Your task to perform on an android device: change your default location settings in chrome Image 0: 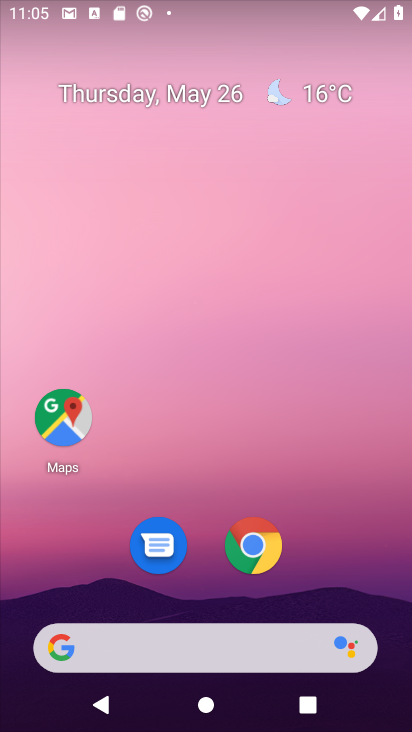
Step 0: press home button
Your task to perform on an android device: change your default location settings in chrome Image 1: 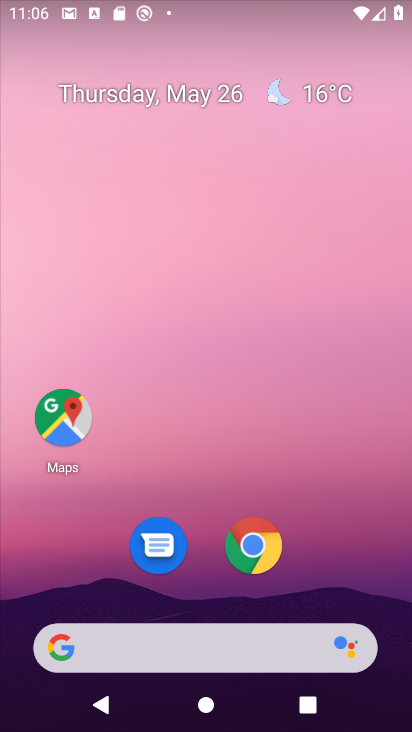
Step 1: click (259, 559)
Your task to perform on an android device: change your default location settings in chrome Image 2: 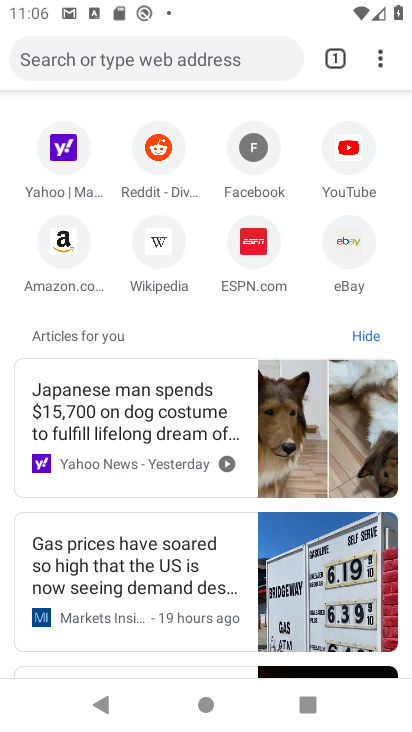
Step 2: drag from (382, 63) to (152, 487)
Your task to perform on an android device: change your default location settings in chrome Image 3: 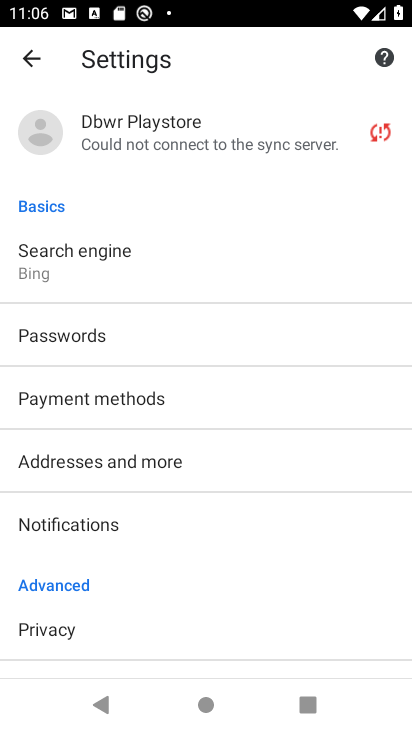
Step 3: drag from (255, 589) to (247, 250)
Your task to perform on an android device: change your default location settings in chrome Image 4: 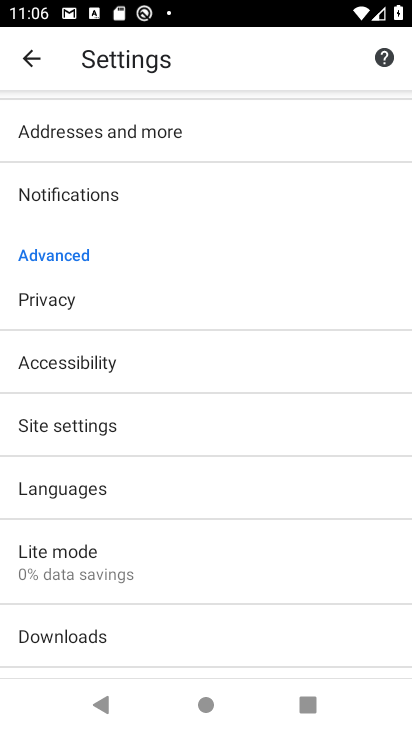
Step 4: click (58, 427)
Your task to perform on an android device: change your default location settings in chrome Image 5: 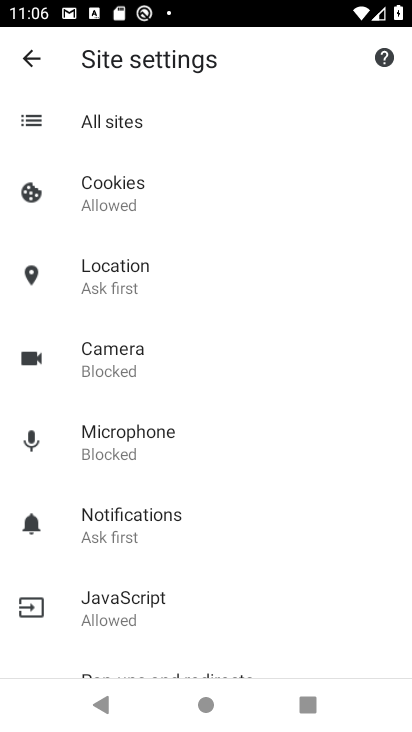
Step 5: click (93, 270)
Your task to perform on an android device: change your default location settings in chrome Image 6: 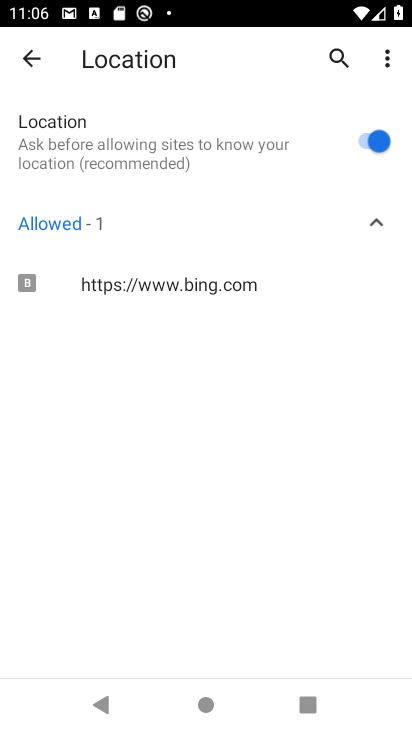
Step 6: click (378, 142)
Your task to perform on an android device: change your default location settings in chrome Image 7: 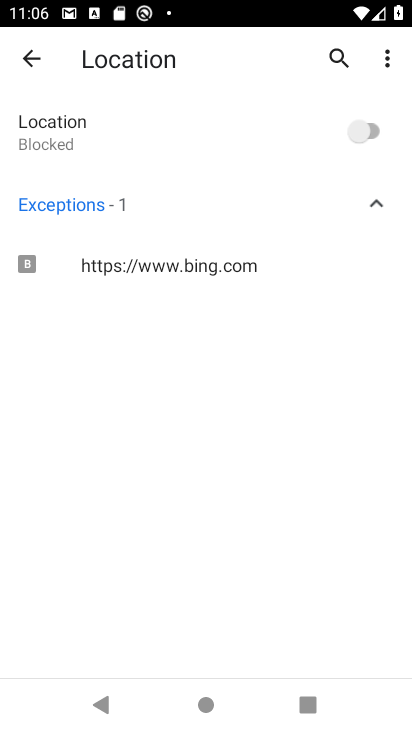
Step 7: task complete